Your task to perform on an android device: Find coffee shops on Maps Image 0: 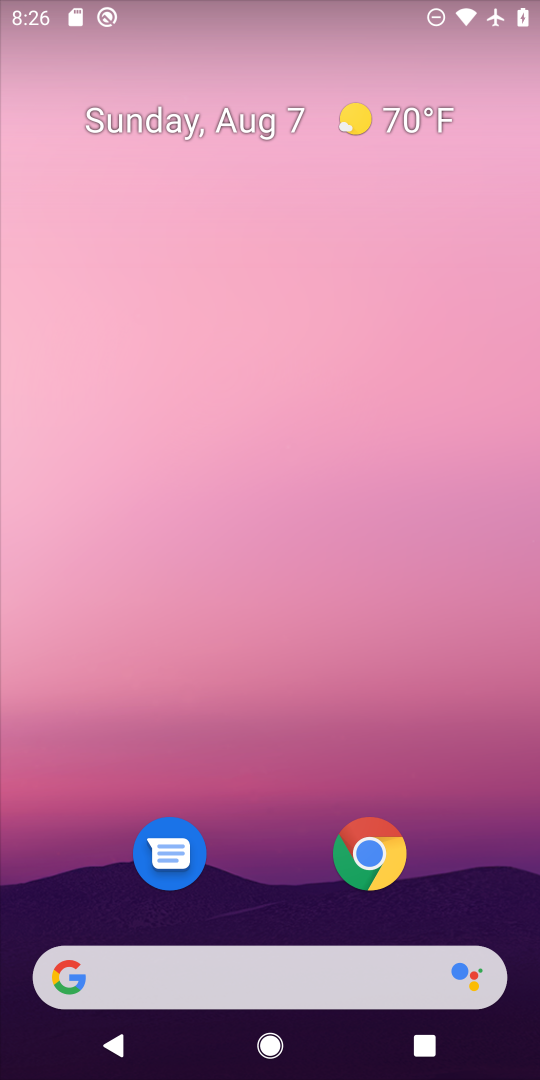
Step 0: drag from (275, 912) to (272, 205)
Your task to perform on an android device: Find coffee shops on Maps Image 1: 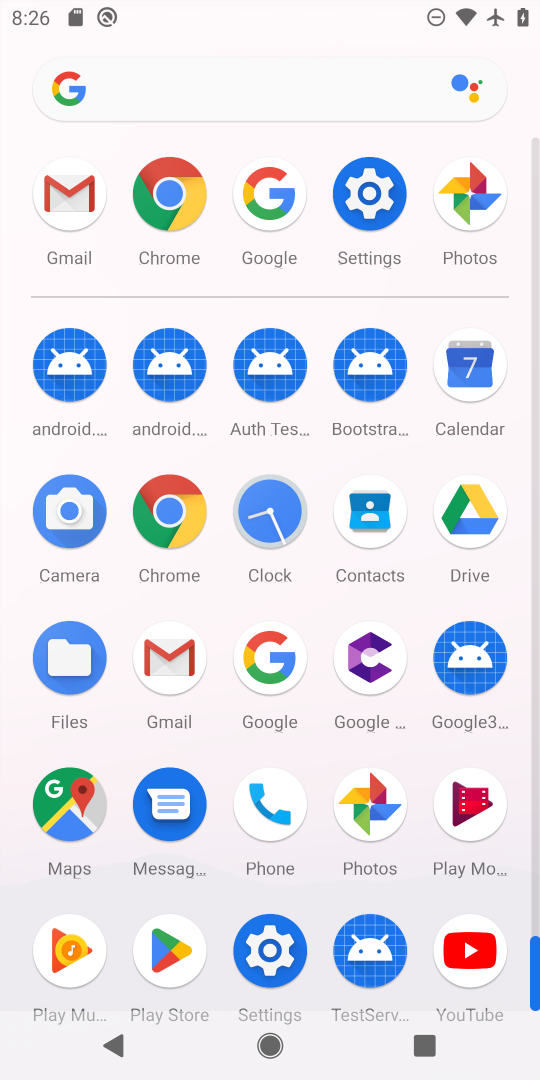
Step 1: click (61, 819)
Your task to perform on an android device: Find coffee shops on Maps Image 2: 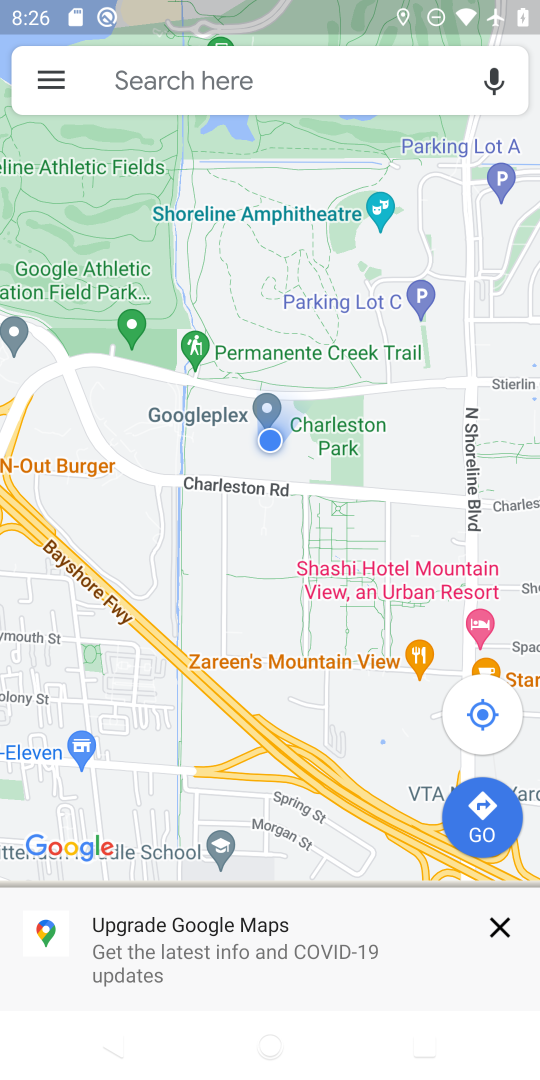
Step 2: click (311, 94)
Your task to perform on an android device: Find coffee shops on Maps Image 3: 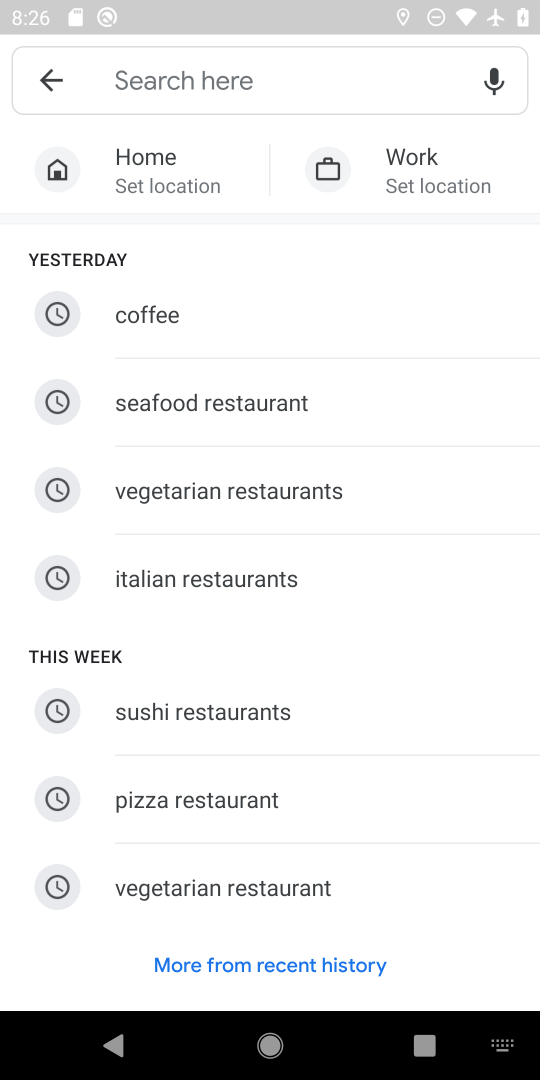
Step 3: type "coffee shops "
Your task to perform on an android device: Find coffee shops on Maps Image 4: 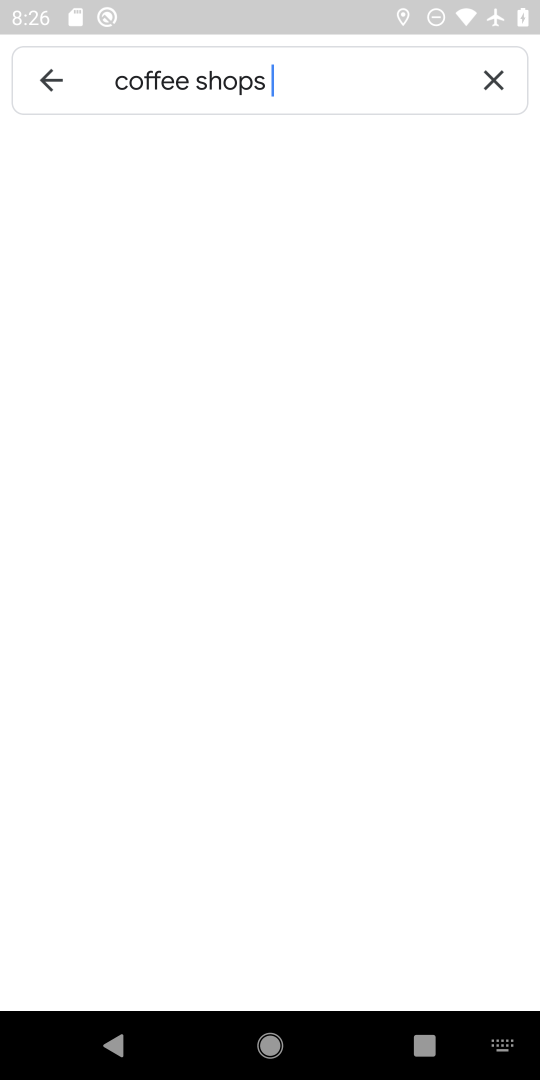
Step 4: type ""
Your task to perform on an android device: Find coffee shops on Maps Image 5: 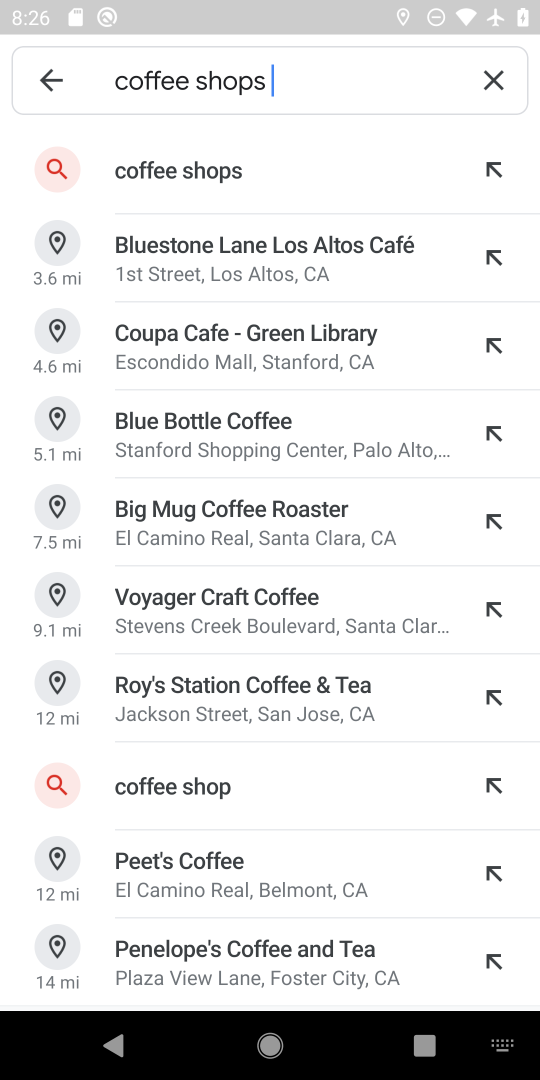
Step 5: click (269, 167)
Your task to perform on an android device: Find coffee shops on Maps Image 6: 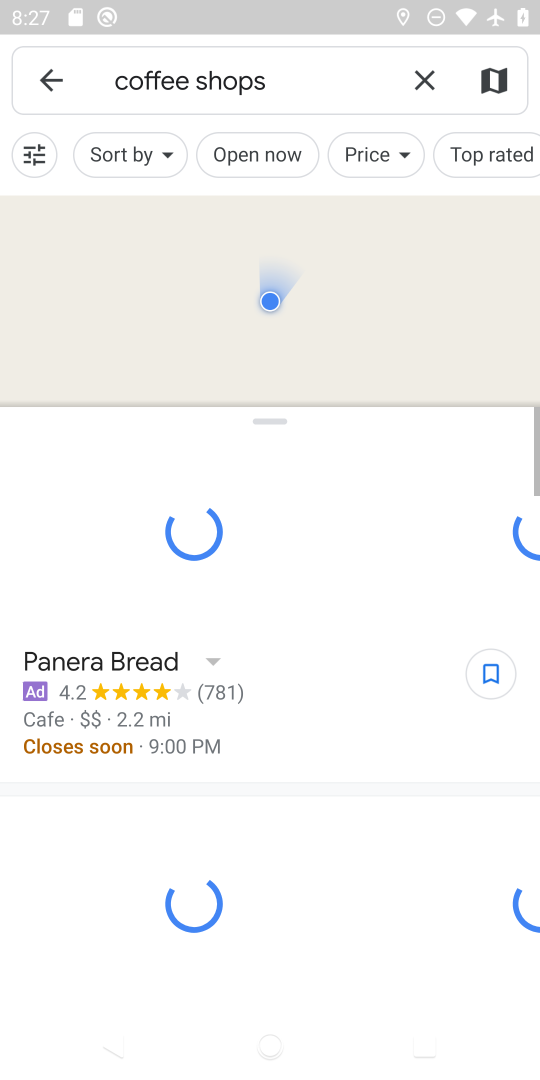
Step 6: task complete